Your task to perform on an android device: Open the calendar and show me this week's events Image 0: 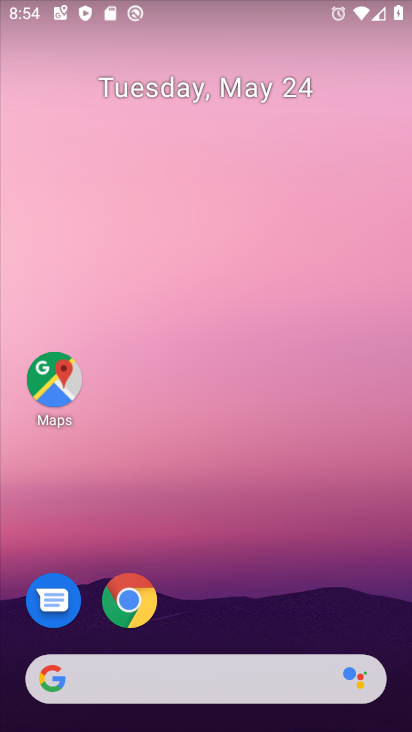
Step 0: drag from (220, 718) to (220, 166)
Your task to perform on an android device: Open the calendar and show me this week's events Image 1: 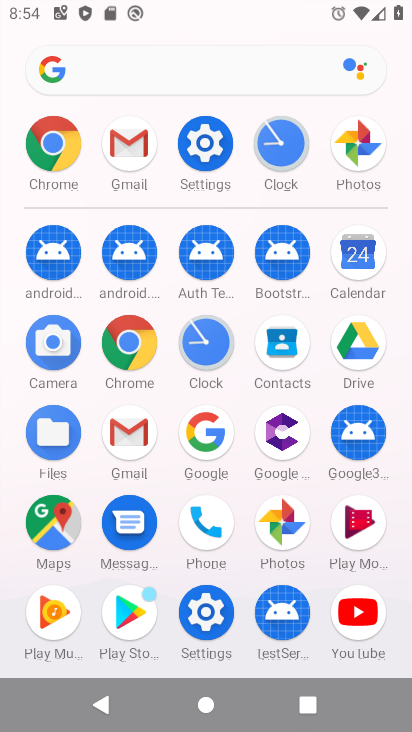
Step 1: click (362, 264)
Your task to perform on an android device: Open the calendar and show me this week's events Image 2: 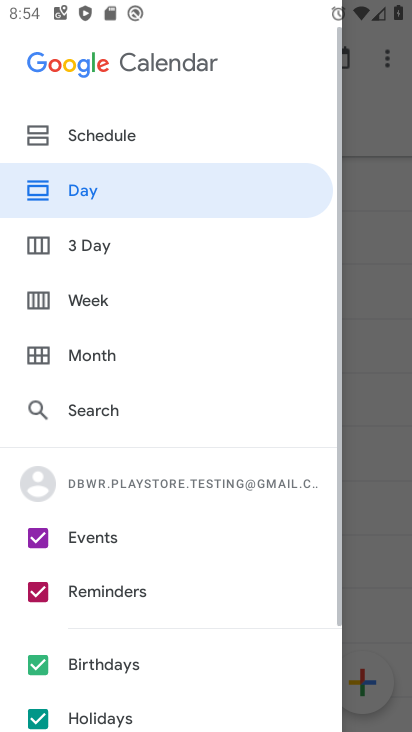
Step 2: click (36, 715)
Your task to perform on an android device: Open the calendar and show me this week's events Image 3: 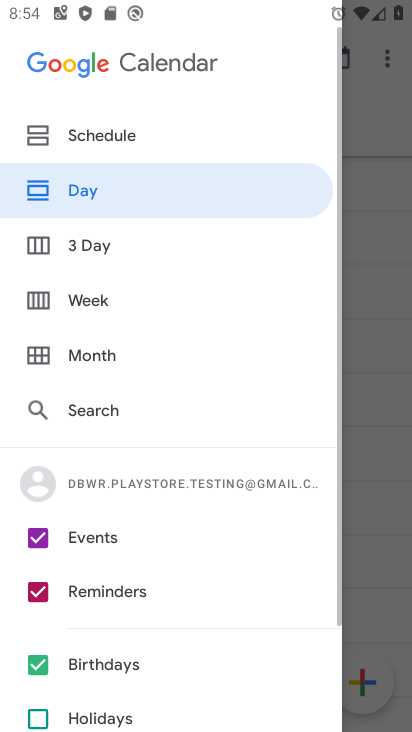
Step 3: click (38, 665)
Your task to perform on an android device: Open the calendar and show me this week's events Image 4: 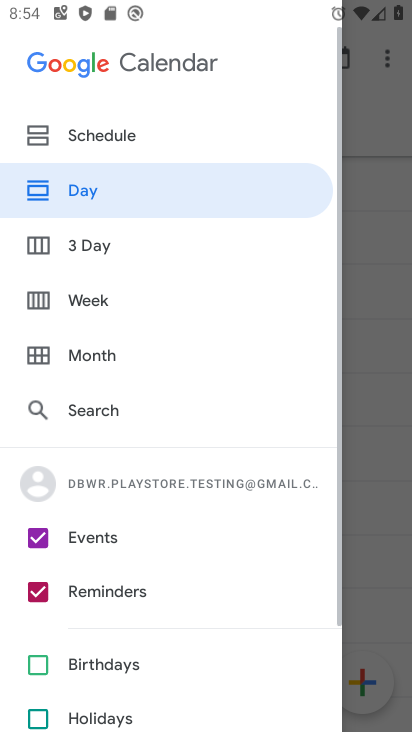
Step 4: click (39, 585)
Your task to perform on an android device: Open the calendar and show me this week's events Image 5: 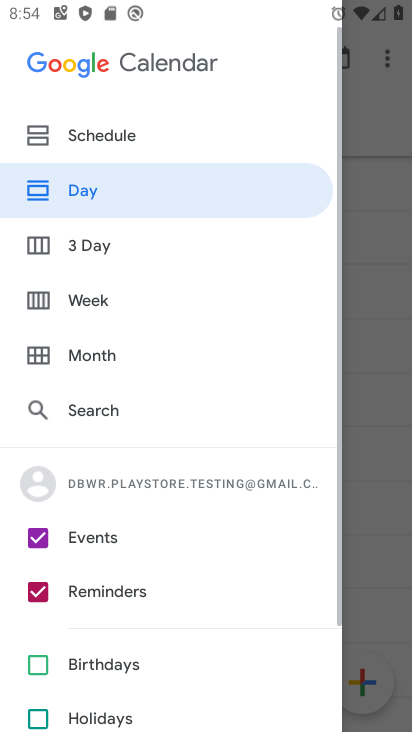
Step 5: click (40, 589)
Your task to perform on an android device: Open the calendar and show me this week's events Image 6: 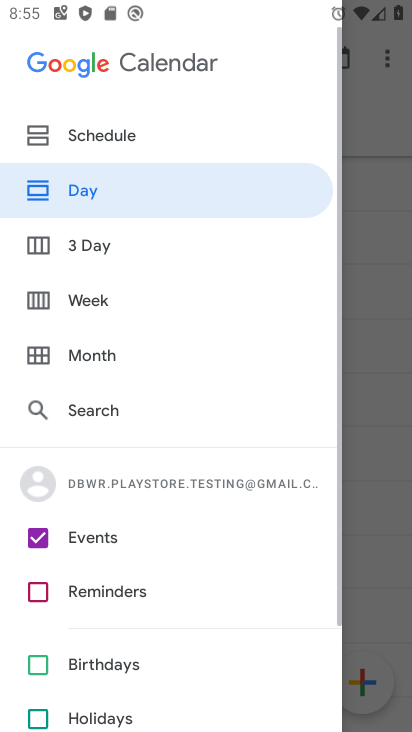
Step 6: click (57, 294)
Your task to perform on an android device: Open the calendar and show me this week's events Image 7: 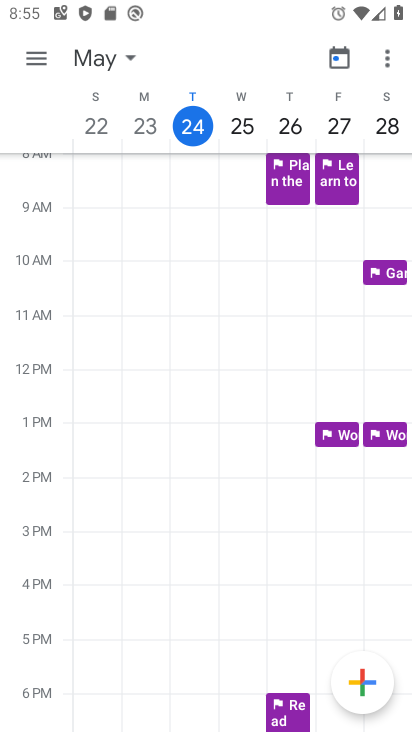
Step 7: task complete